Your task to perform on an android device: change the clock display to digital Image 0: 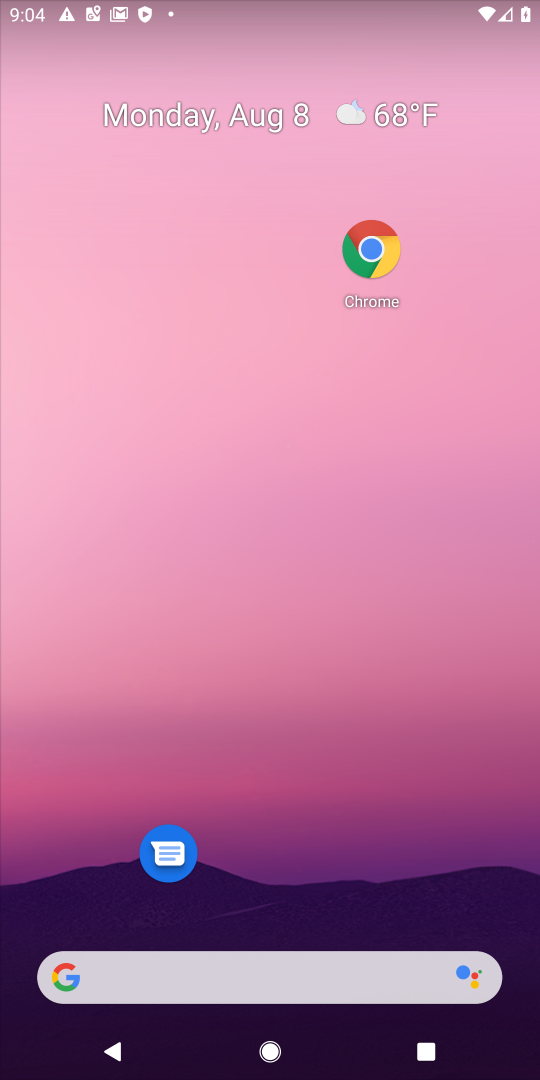
Step 0: press home button
Your task to perform on an android device: change the clock display to digital Image 1: 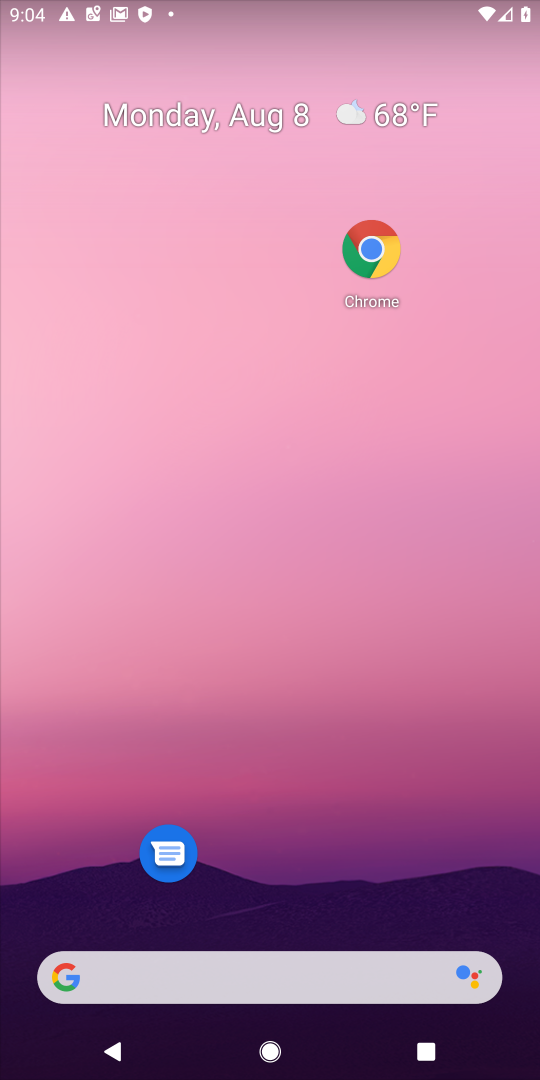
Step 1: press home button
Your task to perform on an android device: change the clock display to digital Image 2: 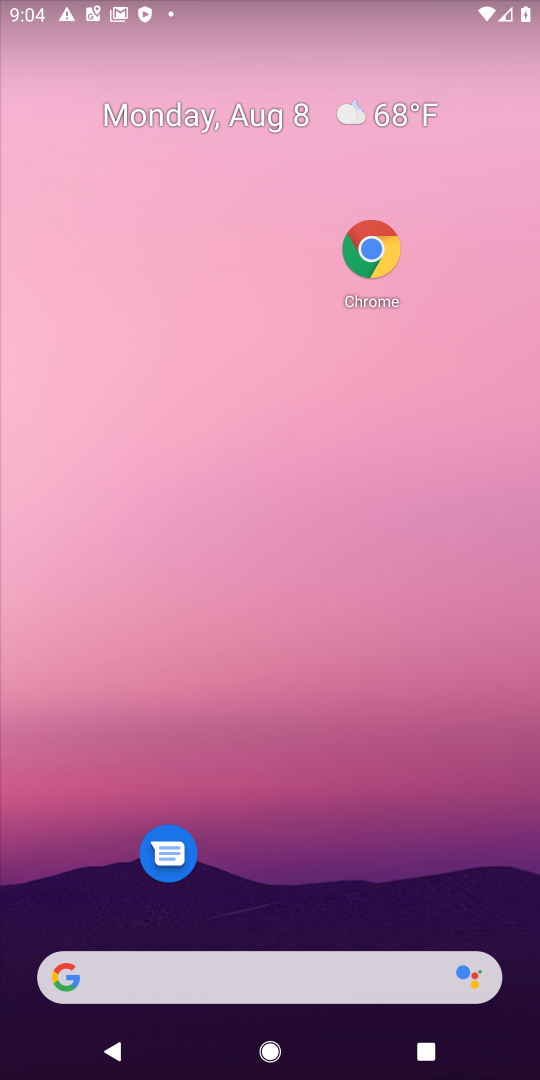
Step 2: drag from (407, 843) to (280, 38)
Your task to perform on an android device: change the clock display to digital Image 3: 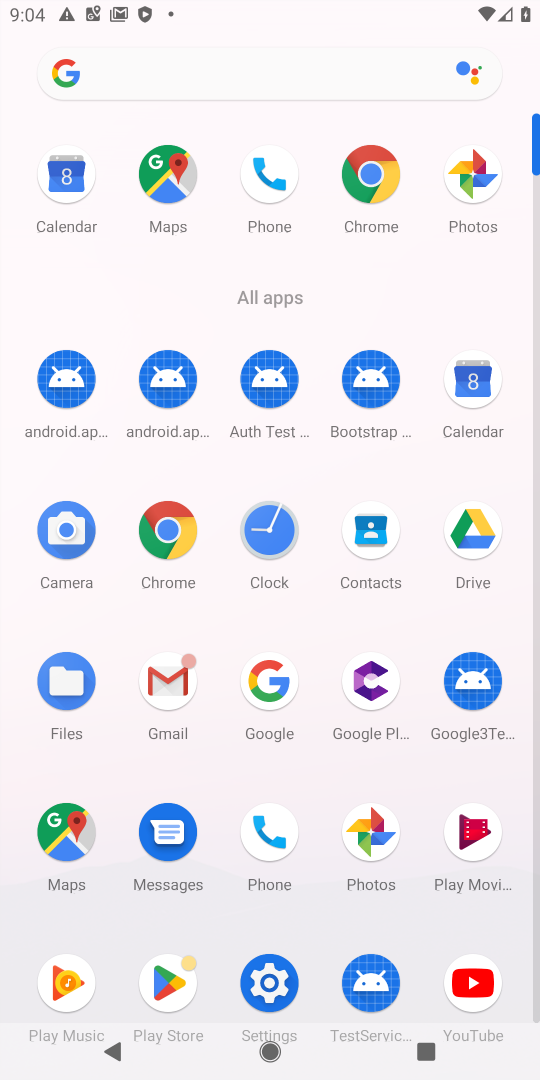
Step 3: click (263, 527)
Your task to perform on an android device: change the clock display to digital Image 4: 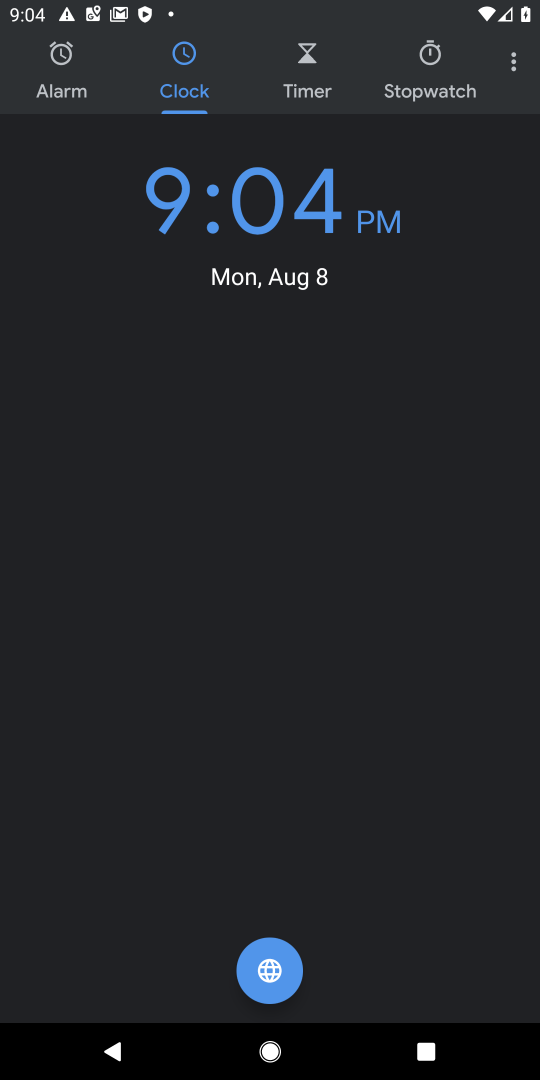
Step 4: click (507, 47)
Your task to perform on an android device: change the clock display to digital Image 5: 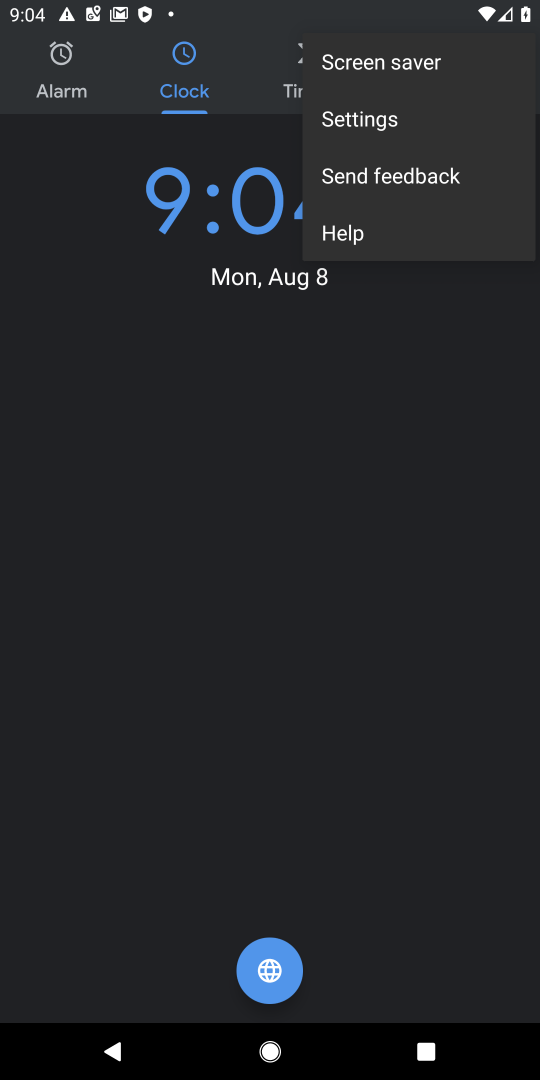
Step 5: click (391, 130)
Your task to perform on an android device: change the clock display to digital Image 6: 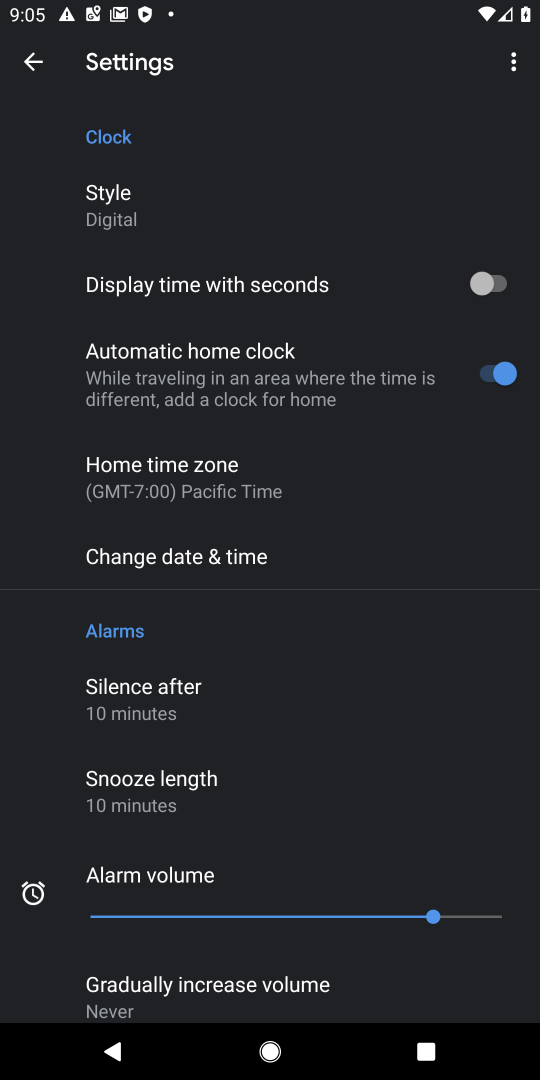
Step 6: click (62, 211)
Your task to perform on an android device: change the clock display to digital Image 7: 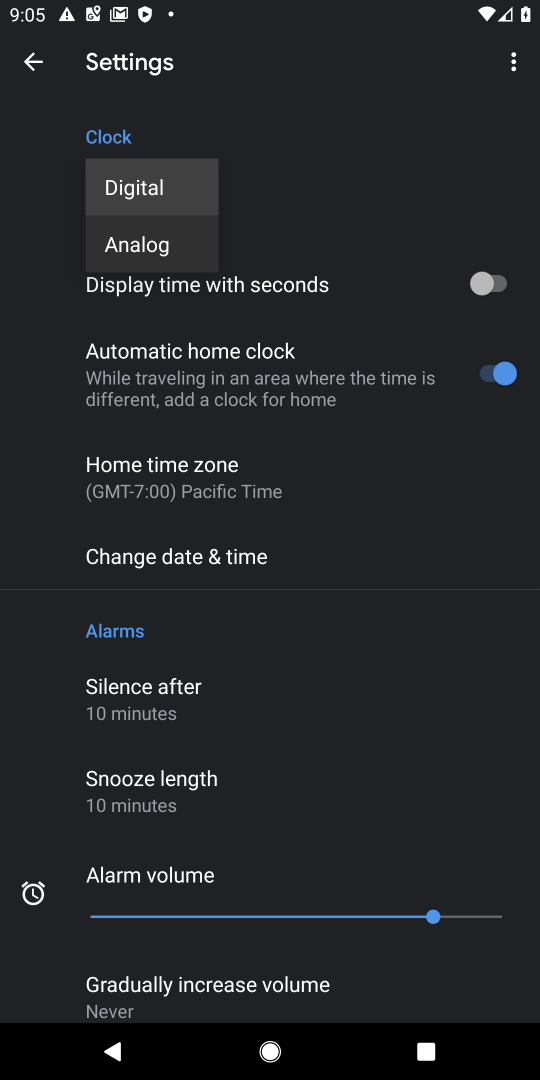
Step 7: click (123, 202)
Your task to perform on an android device: change the clock display to digital Image 8: 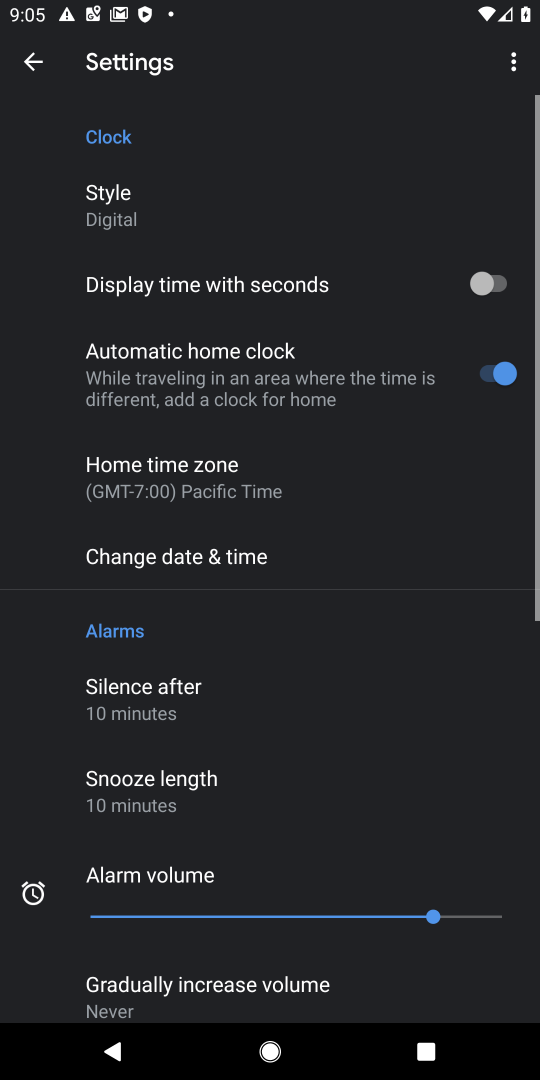
Step 8: task complete